Your task to perform on an android device: install app "Lyft - Rideshare, Bikes, Scooters & Transit" Image 0: 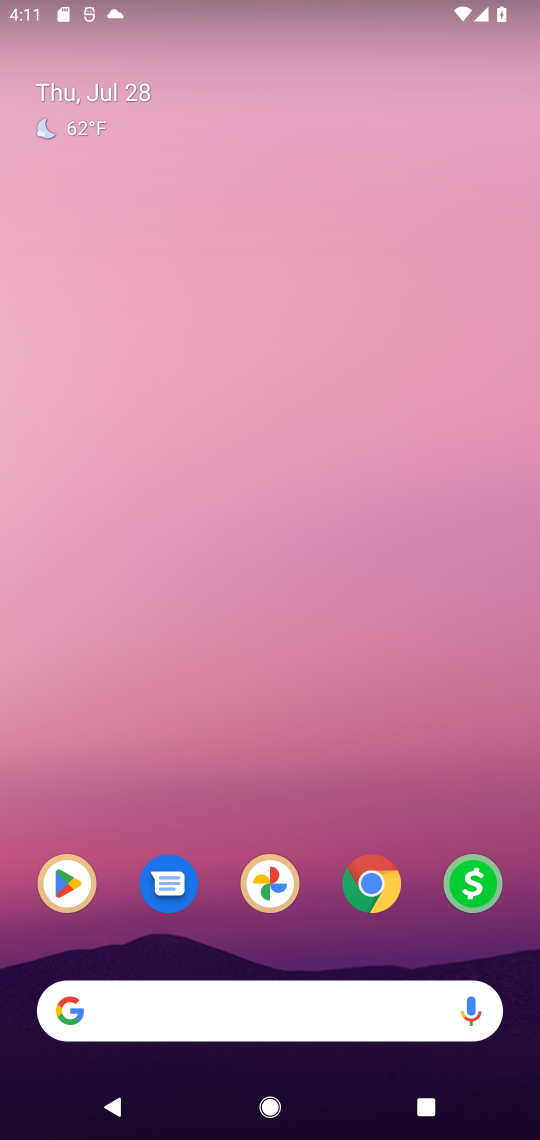
Step 0: drag from (307, 969) to (440, 40)
Your task to perform on an android device: install app "Lyft - Rideshare, Bikes, Scooters & Transit" Image 1: 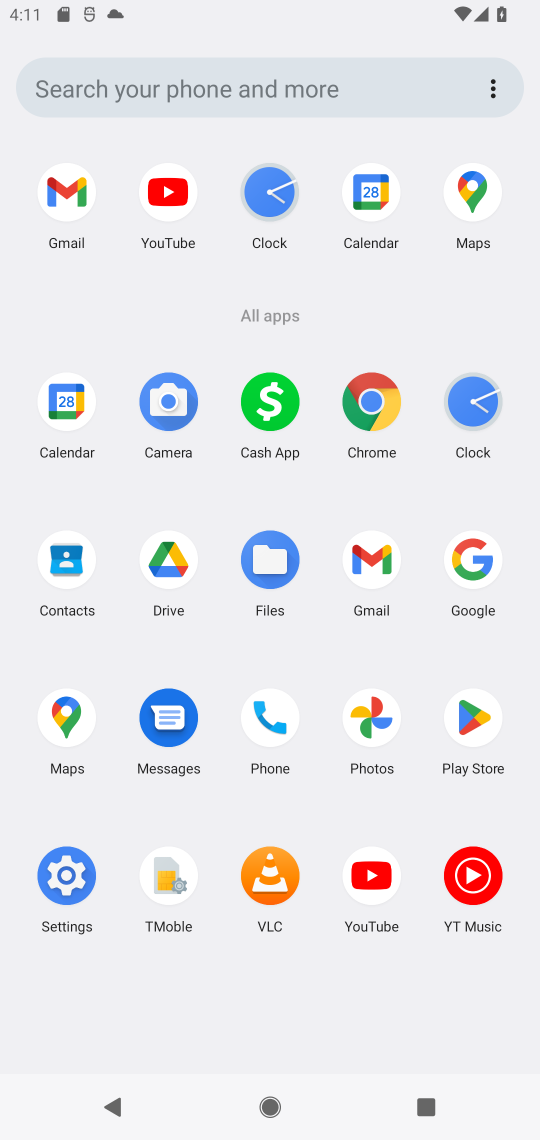
Step 1: click (471, 723)
Your task to perform on an android device: install app "Lyft - Rideshare, Bikes, Scooters & Transit" Image 2: 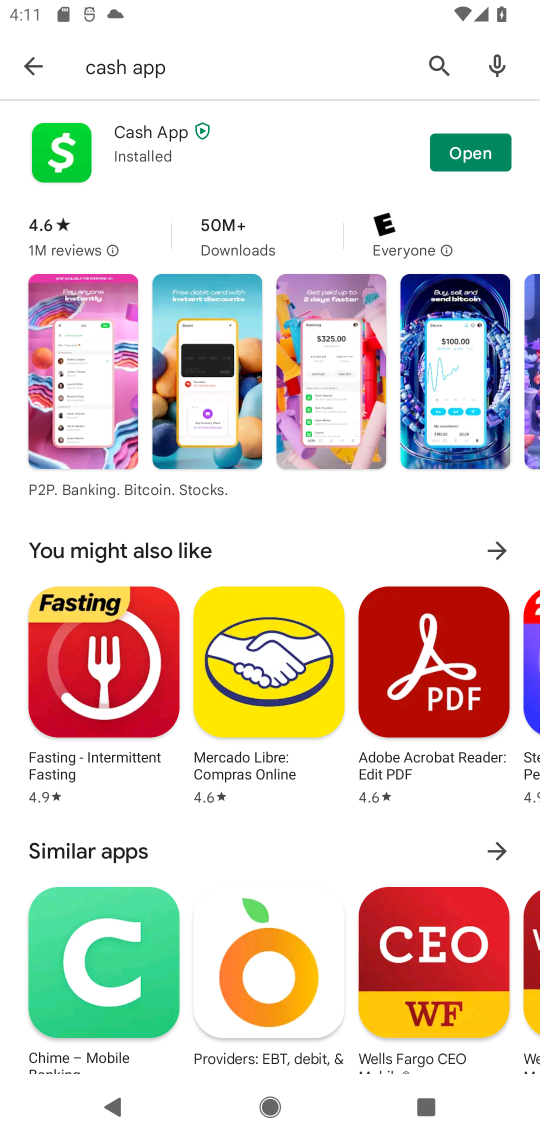
Step 2: click (56, 64)
Your task to perform on an android device: install app "Lyft - Rideshare, Bikes, Scooters & Transit" Image 3: 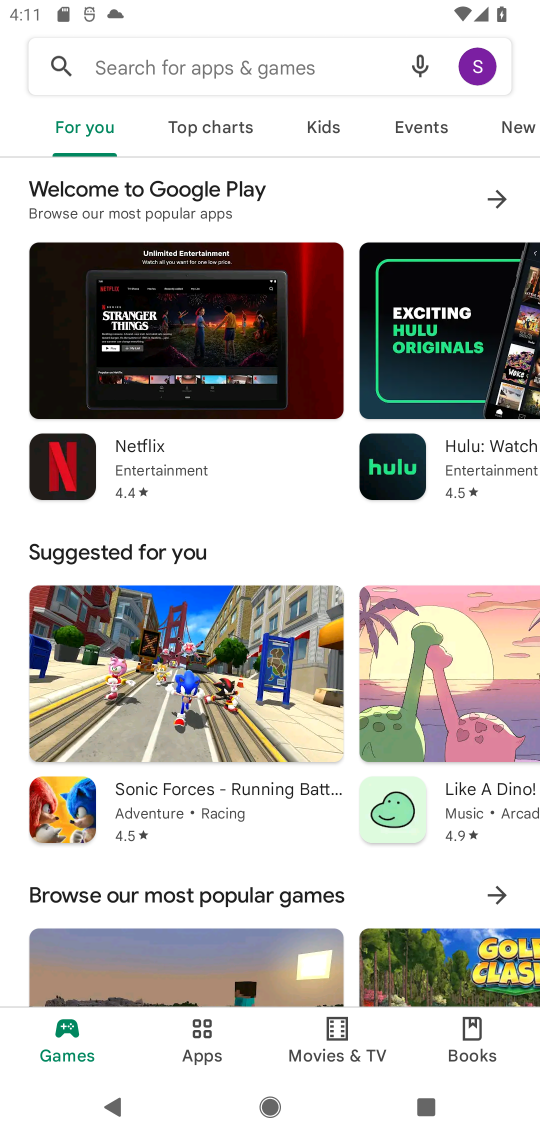
Step 3: click (214, 35)
Your task to perform on an android device: install app "Lyft - Rideshare, Bikes, Scooters & Transit" Image 4: 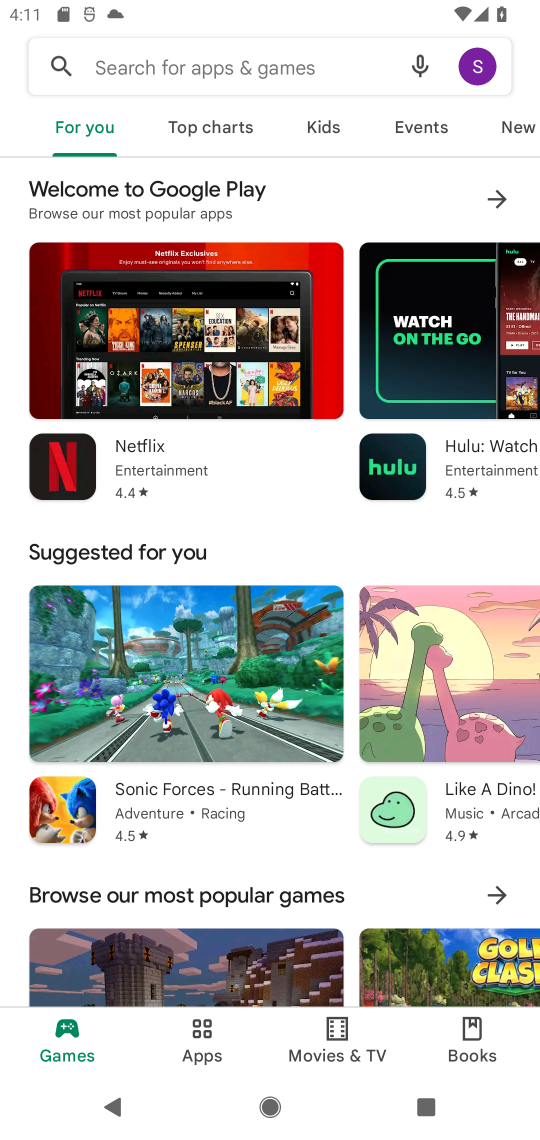
Step 4: click (233, 69)
Your task to perform on an android device: install app "Lyft - Rideshare, Bikes, Scooters & Transit" Image 5: 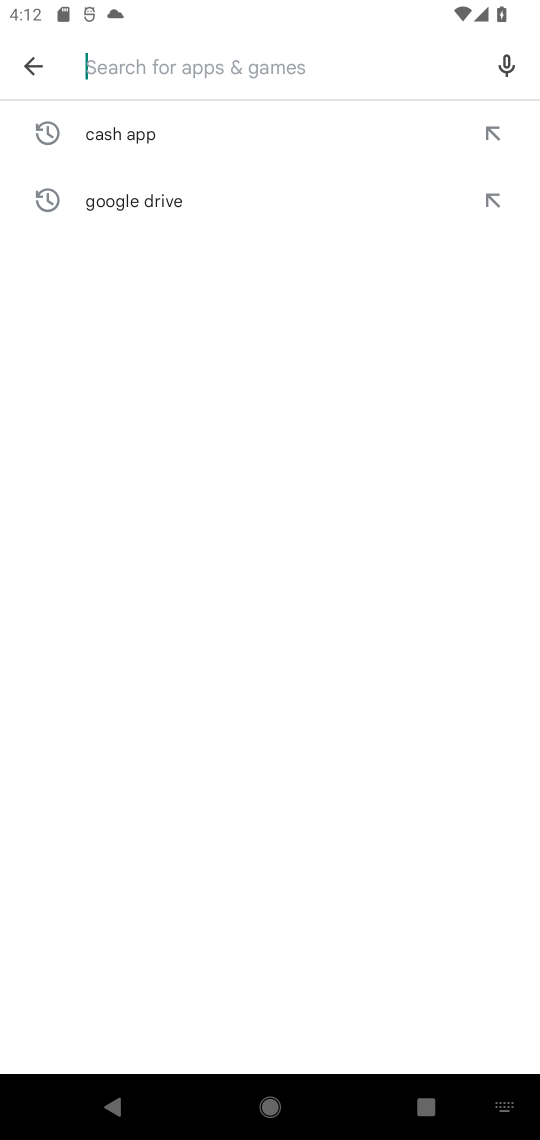
Step 5: type "Lyft - Rideshare, Bikes, Scooters & Transit"
Your task to perform on an android device: install app "Lyft - Rideshare, Bikes, Scooters & Transit" Image 6: 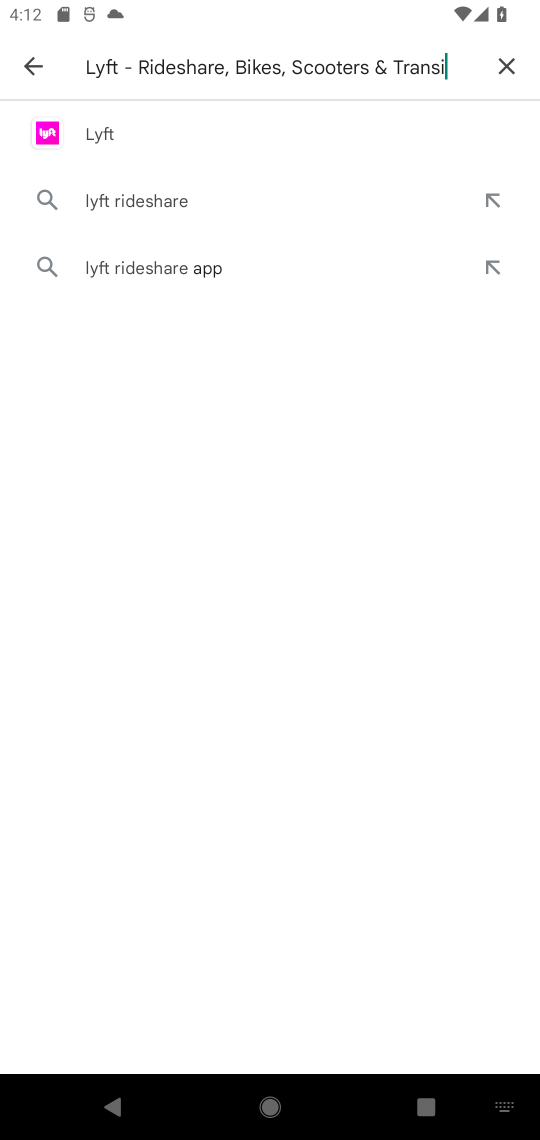
Step 6: type ""
Your task to perform on an android device: install app "Lyft - Rideshare, Bikes, Scooters & Transit" Image 7: 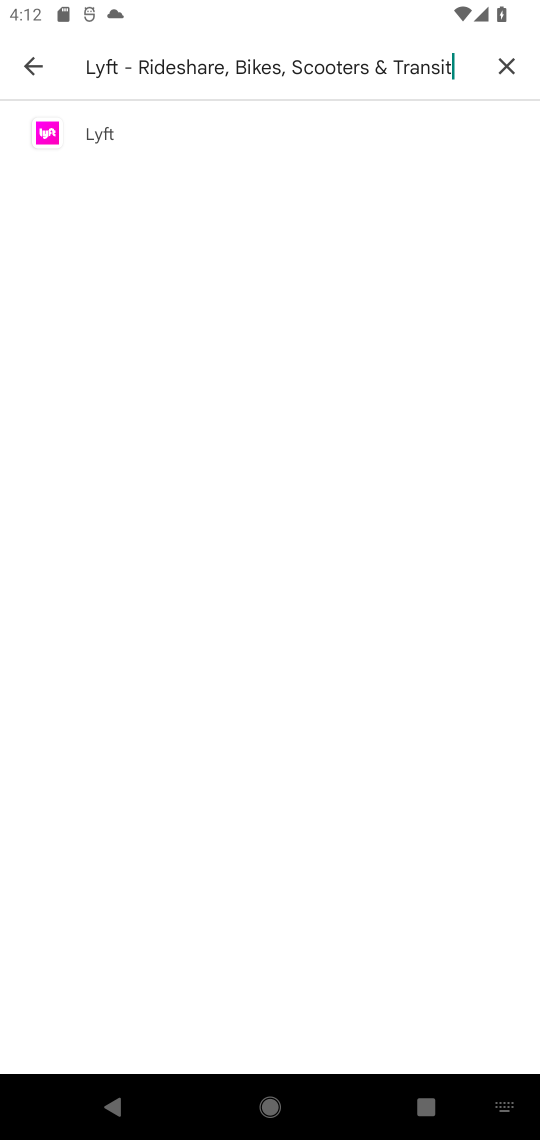
Step 7: click (76, 131)
Your task to perform on an android device: install app "Lyft - Rideshare, Bikes, Scooters & Transit" Image 8: 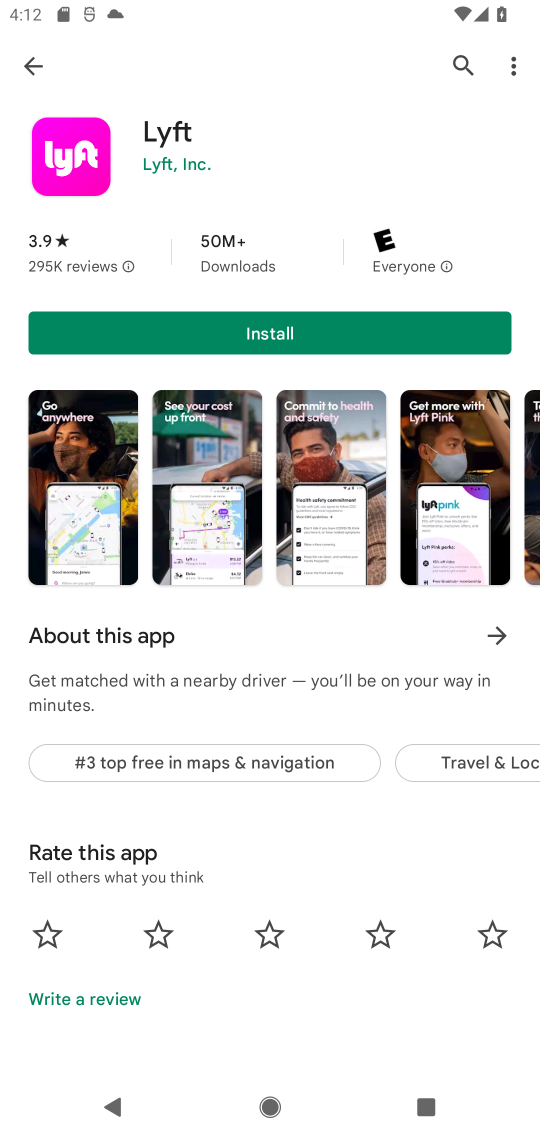
Step 8: click (144, 308)
Your task to perform on an android device: install app "Lyft - Rideshare, Bikes, Scooters & Transit" Image 9: 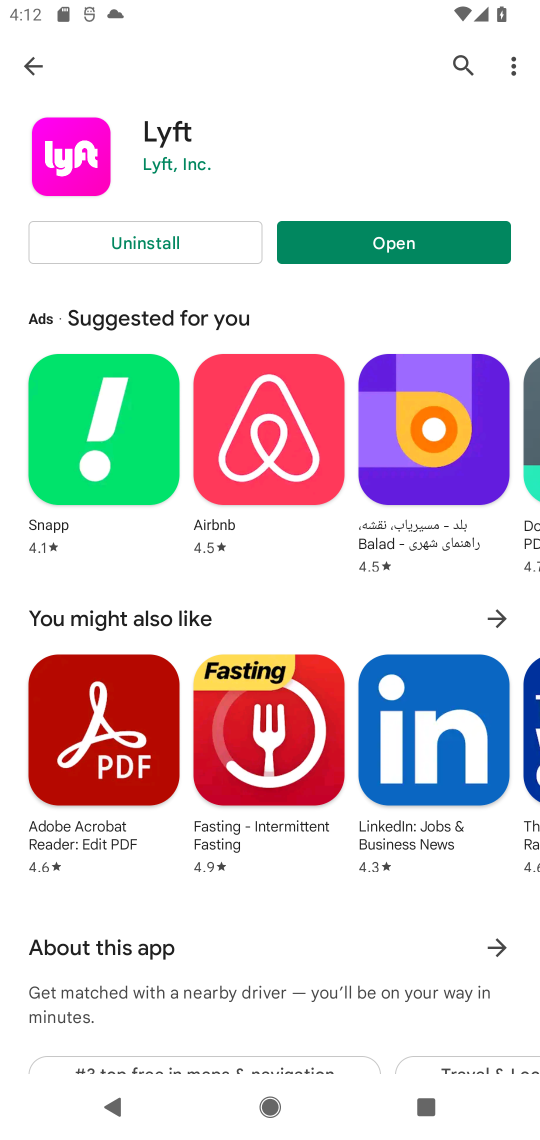
Step 9: click (465, 240)
Your task to perform on an android device: install app "Lyft - Rideshare, Bikes, Scooters & Transit" Image 10: 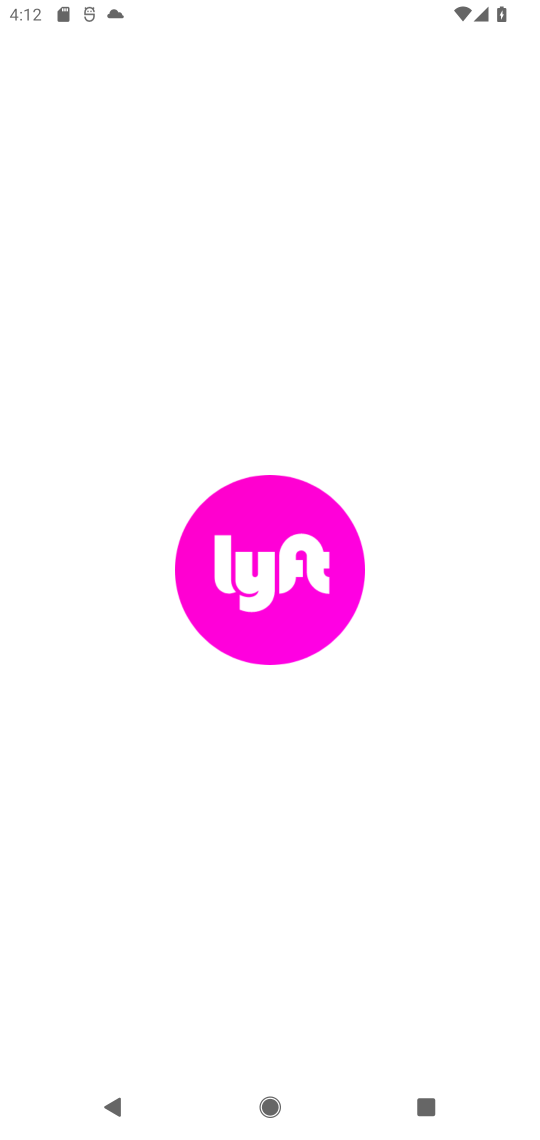
Step 10: task complete